Your task to perform on an android device: Go to accessibility settings Image 0: 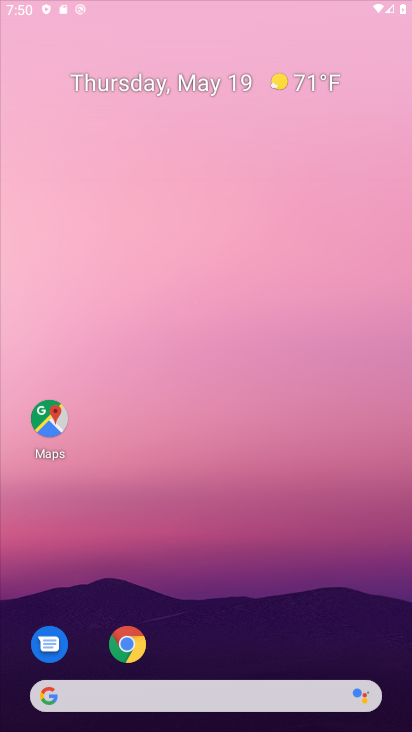
Step 0: drag from (205, 280) to (259, 132)
Your task to perform on an android device: Go to accessibility settings Image 1: 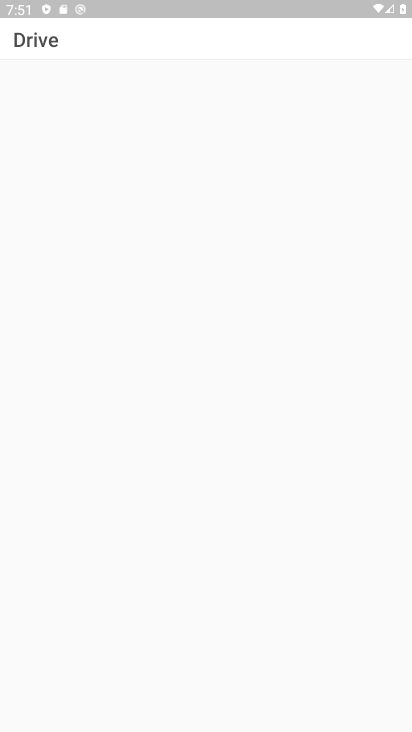
Step 1: press home button
Your task to perform on an android device: Go to accessibility settings Image 2: 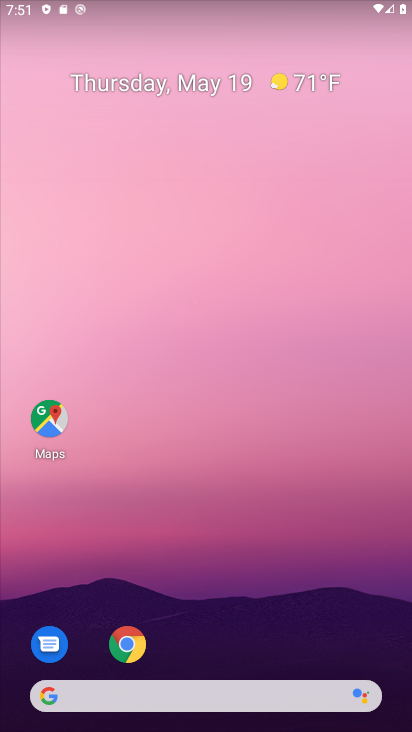
Step 2: drag from (263, 719) to (208, 167)
Your task to perform on an android device: Go to accessibility settings Image 3: 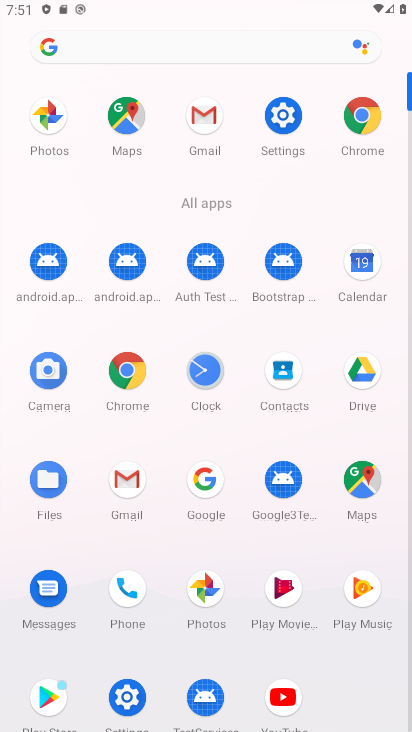
Step 3: click (273, 117)
Your task to perform on an android device: Go to accessibility settings Image 4: 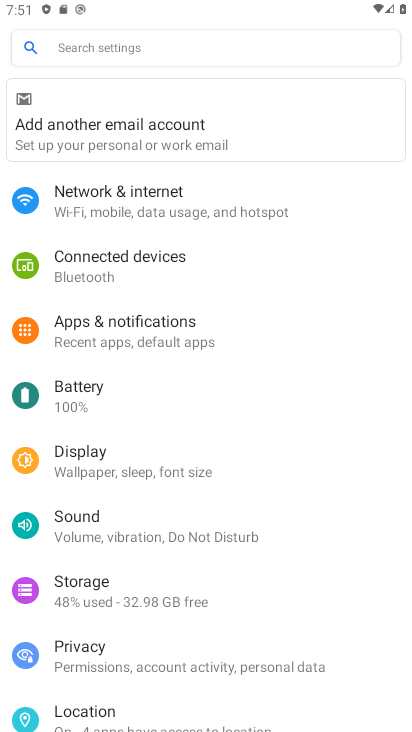
Step 4: click (110, 67)
Your task to perform on an android device: Go to accessibility settings Image 5: 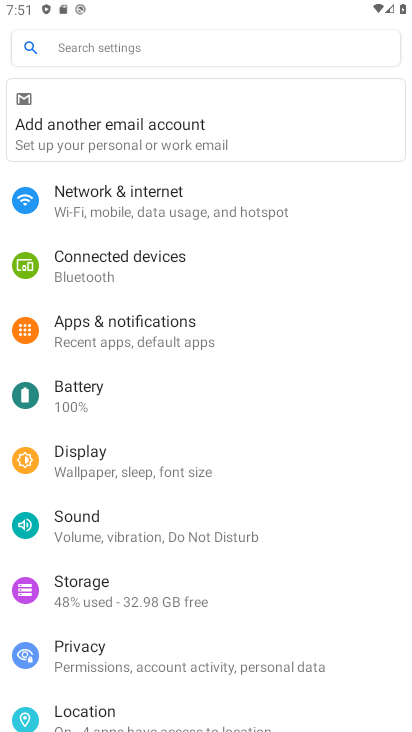
Step 5: click (94, 44)
Your task to perform on an android device: Go to accessibility settings Image 6: 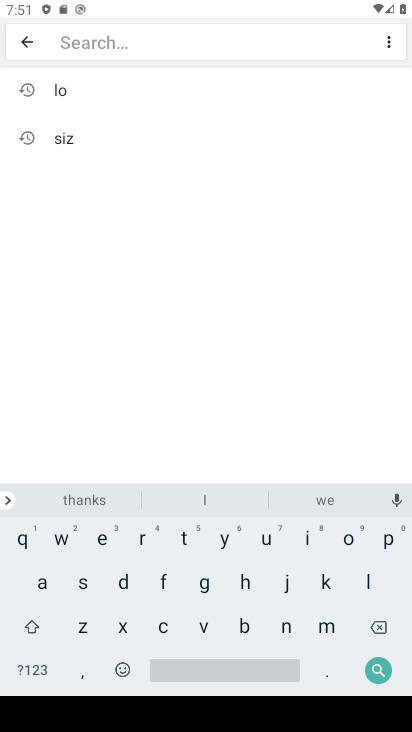
Step 6: click (42, 584)
Your task to perform on an android device: Go to accessibility settings Image 7: 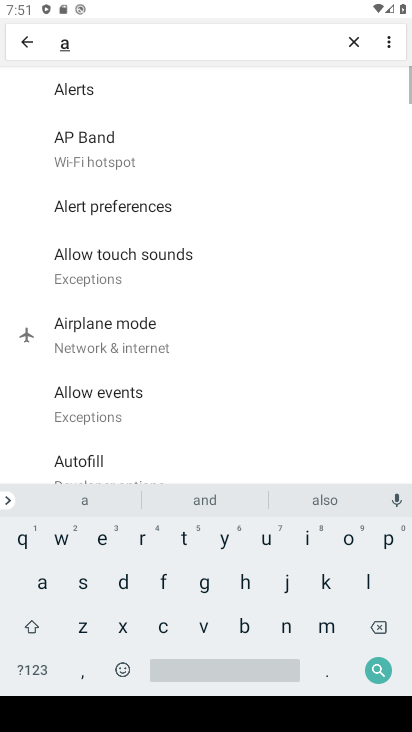
Step 7: click (162, 632)
Your task to perform on an android device: Go to accessibility settings Image 8: 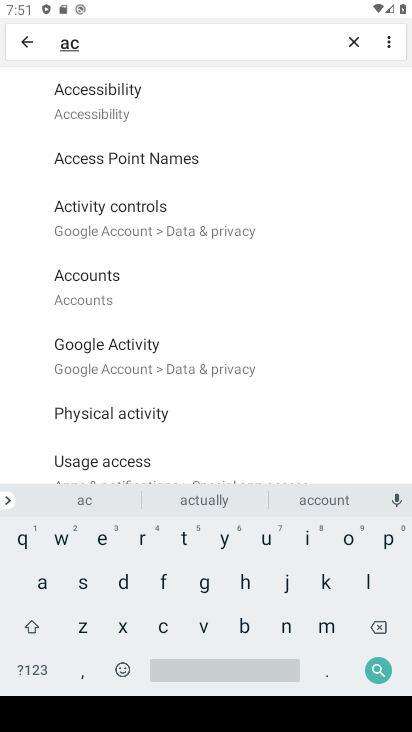
Step 8: click (157, 102)
Your task to perform on an android device: Go to accessibility settings Image 9: 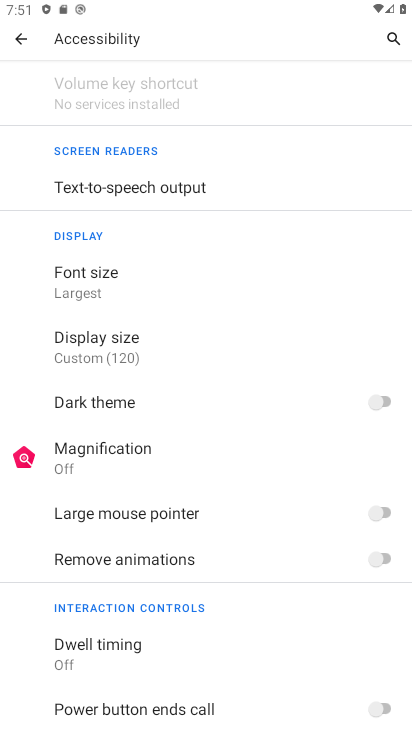
Step 9: task complete